Your task to perform on an android device: Open Android settings Image 0: 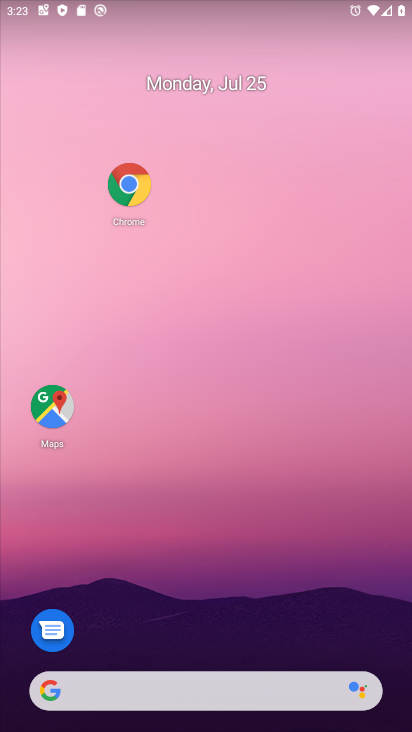
Step 0: drag from (242, 653) to (234, 56)
Your task to perform on an android device: Open Android settings Image 1: 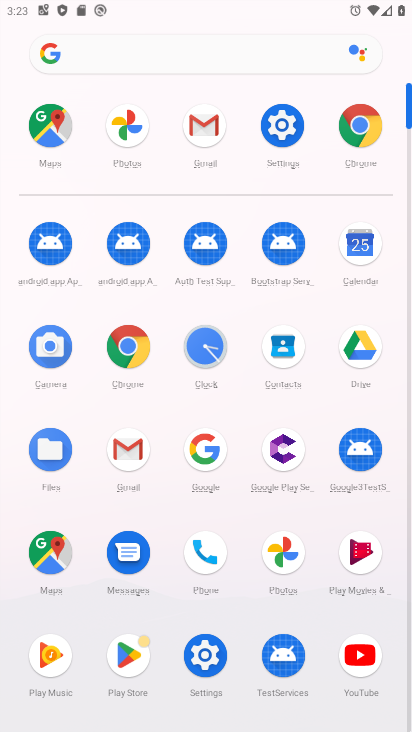
Step 1: click (208, 682)
Your task to perform on an android device: Open Android settings Image 2: 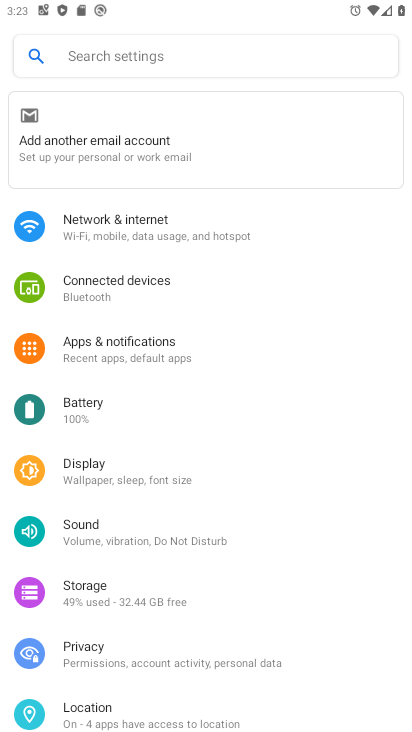
Step 2: task complete